Your task to perform on an android device: Go to Wikipedia Image 0: 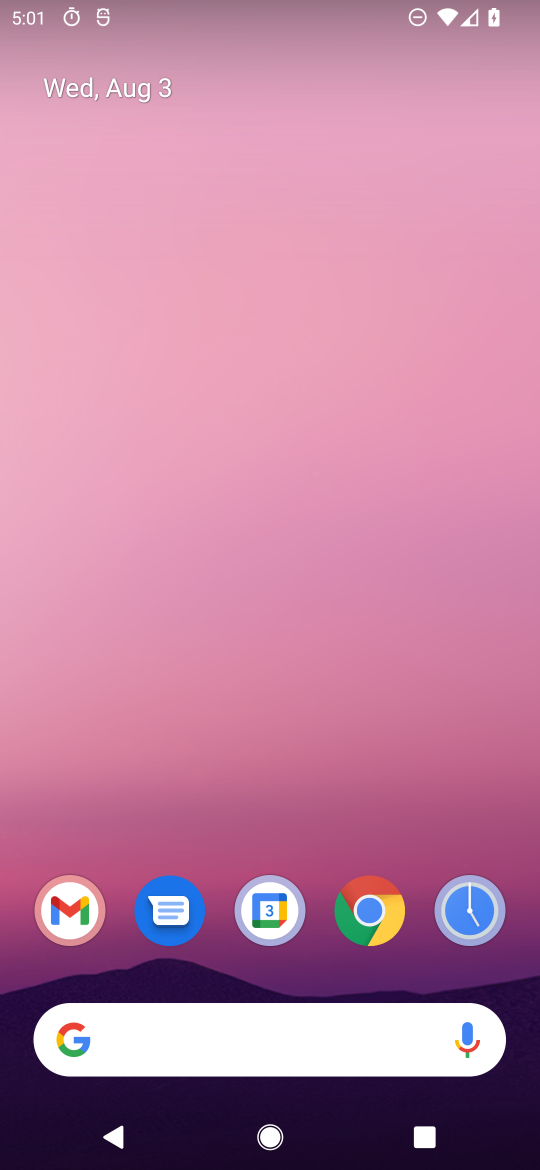
Step 0: click (140, 1031)
Your task to perform on an android device: Go to Wikipedia Image 1: 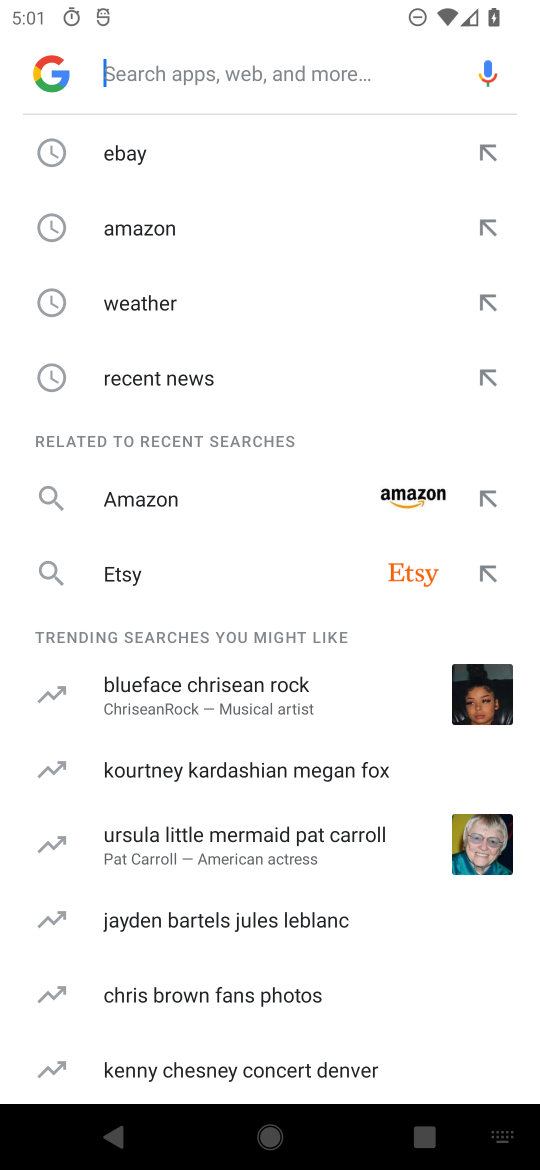
Step 1: type " Wikipedia"
Your task to perform on an android device: Go to Wikipedia Image 2: 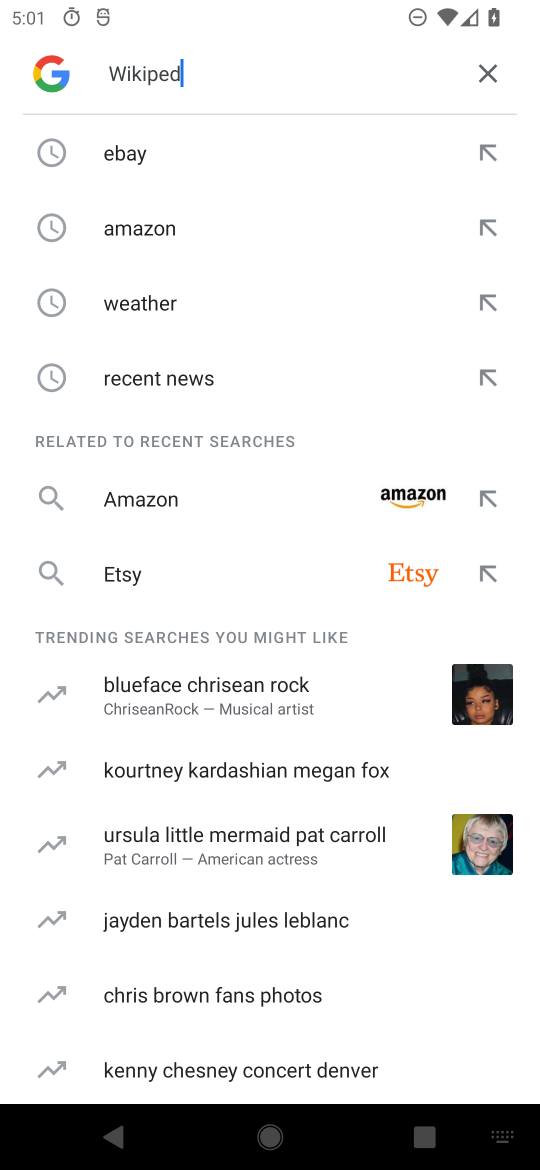
Step 2: type ""
Your task to perform on an android device: Go to Wikipedia Image 3: 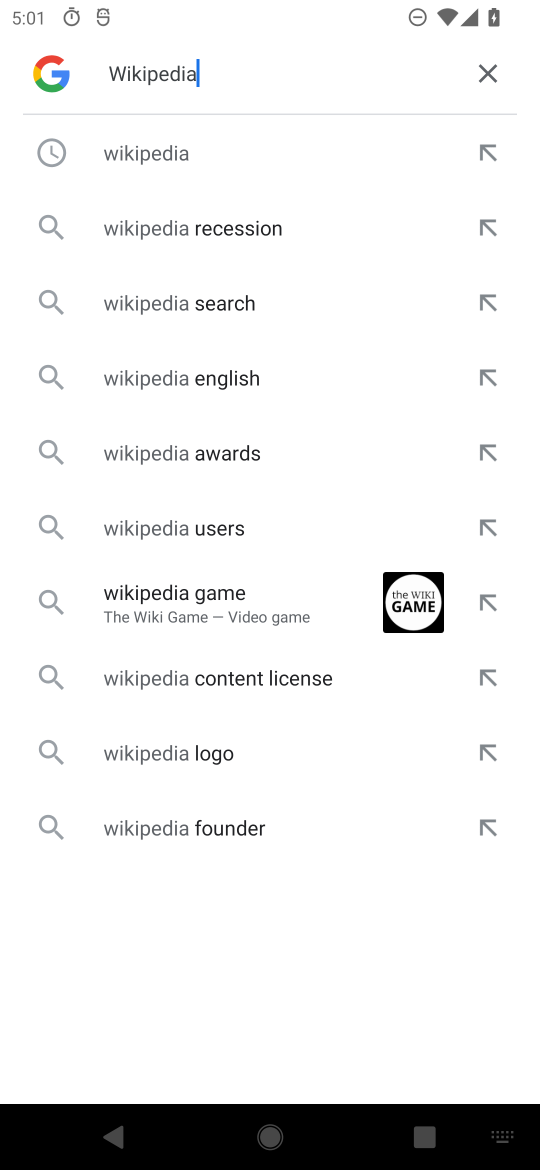
Step 3: click (190, 165)
Your task to perform on an android device: Go to Wikipedia Image 4: 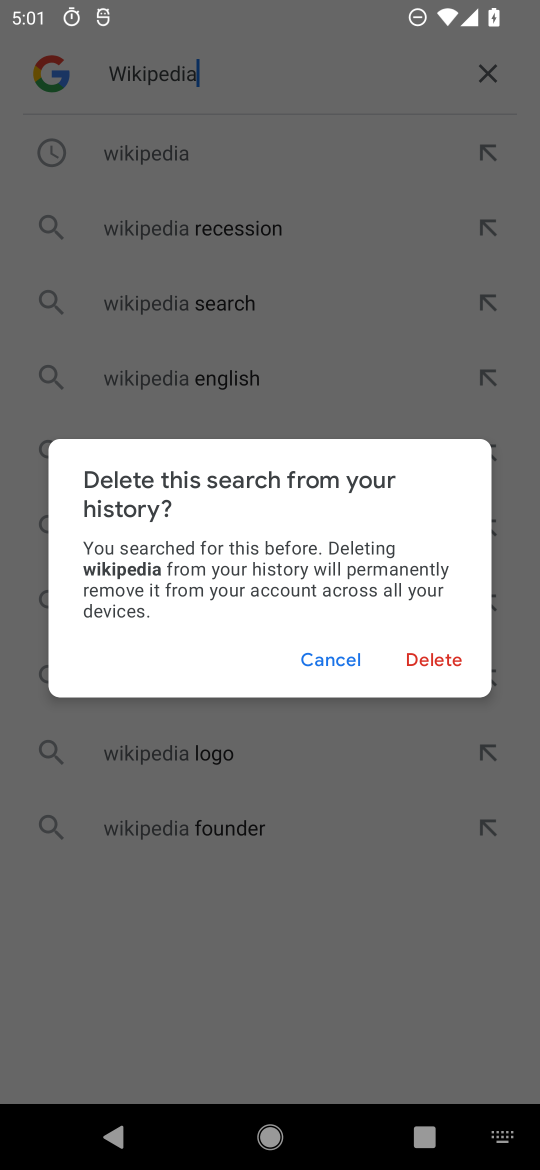
Step 4: click (343, 658)
Your task to perform on an android device: Go to Wikipedia Image 5: 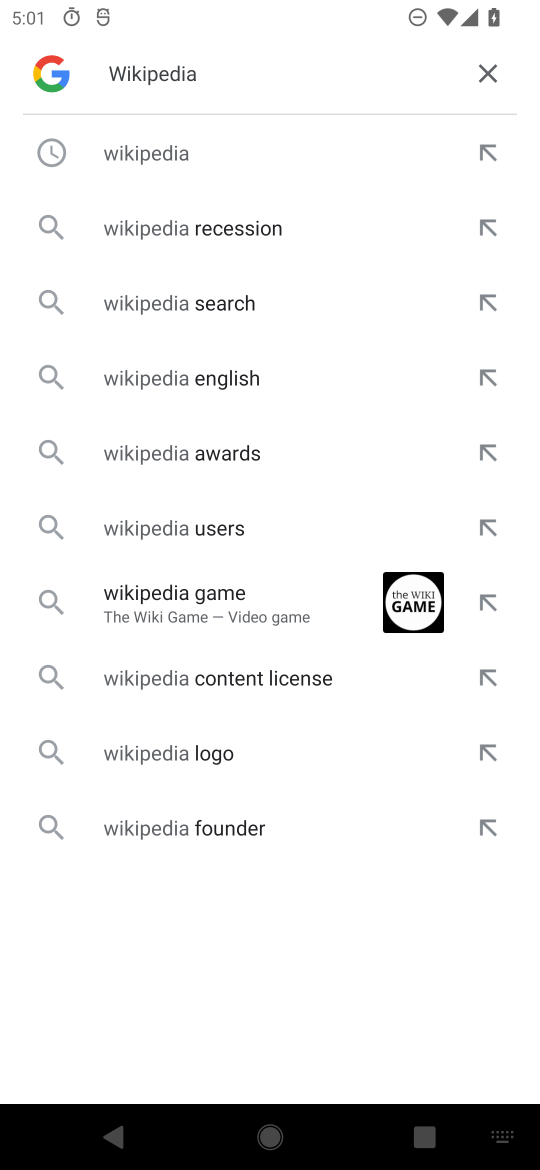
Step 5: click (171, 159)
Your task to perform on an android device: Go to Wikipedia Image 6: 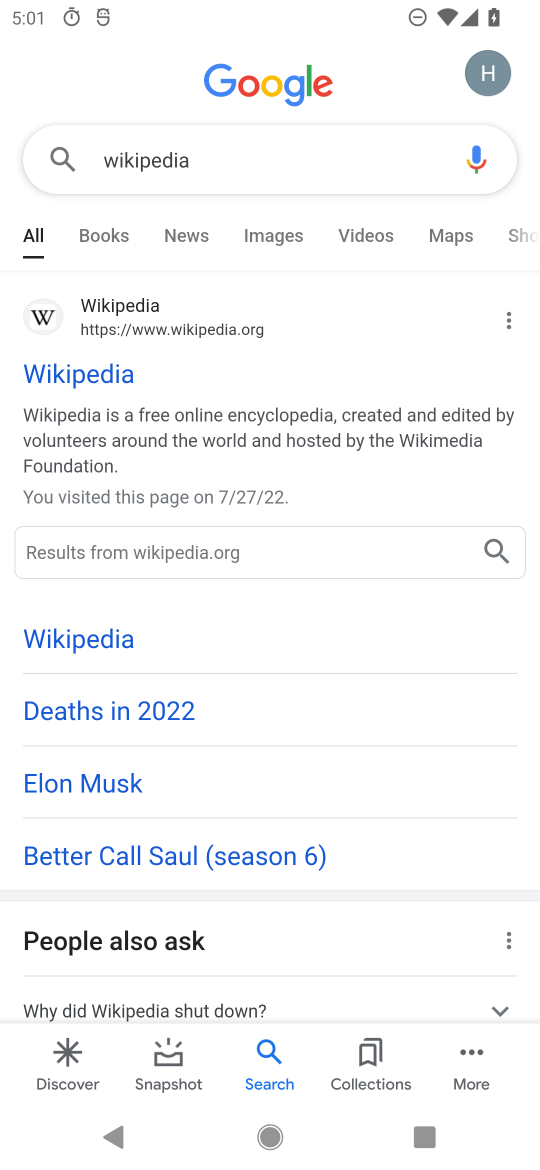
Step 6: task complete